Your task to perform on an android device: change the clock style Image 0: 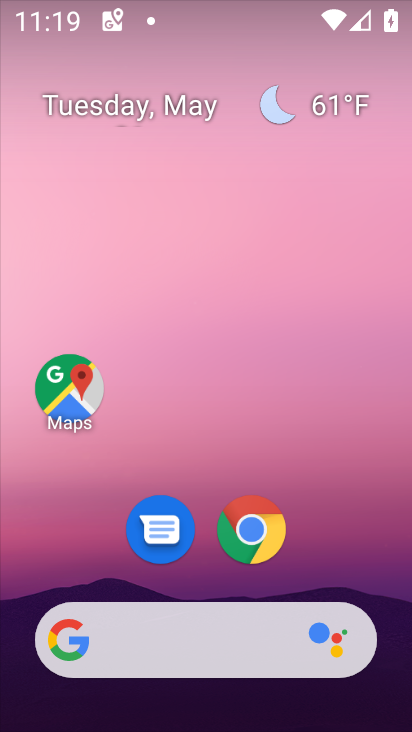
Step 0: drag from (337, 517) to (46, 61)
Your task to perform on an android device: change the clock style Image 1: 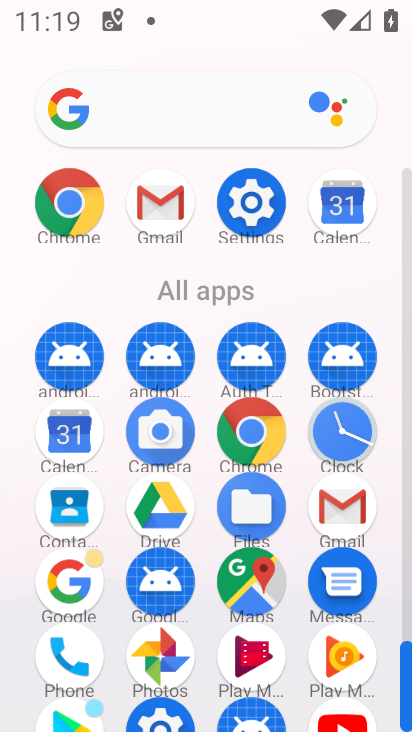
Step 1: click (344, 443)
Your task to perform on an android device: change the clock style Image 2: 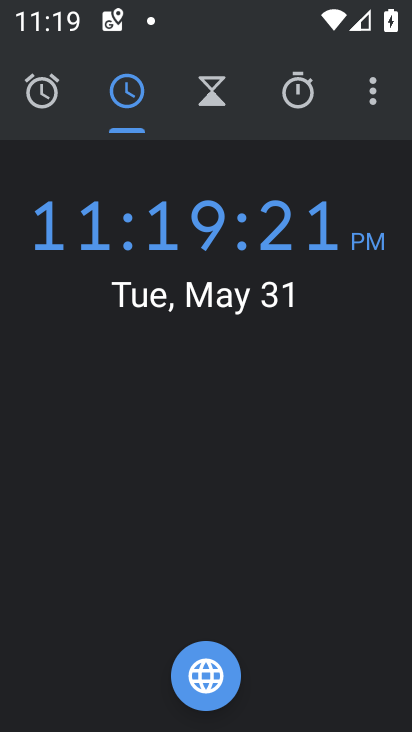
Step 2: click (373, 94)
Your task to perform on an android device: change the clock style Image 3: 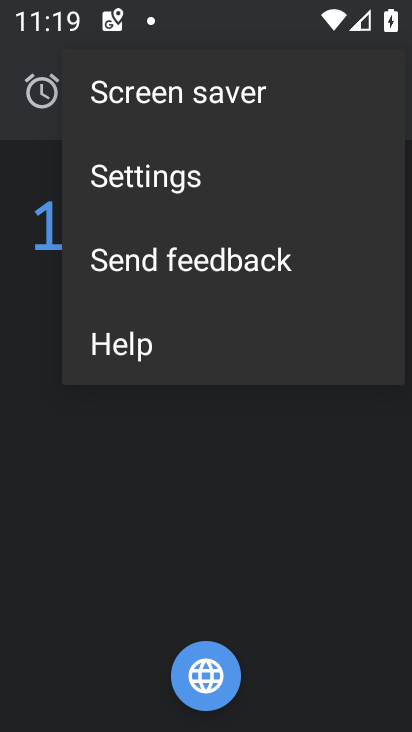
Step 3: click (179, 179)
Your task to perform on an android device: change the clock style Image 4: 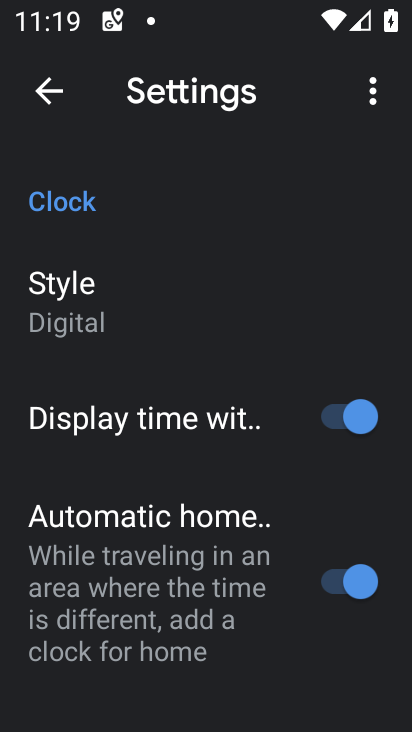
Step 4: click (87, 309)
Your task to perform on an android device: change the clock style Image 5: 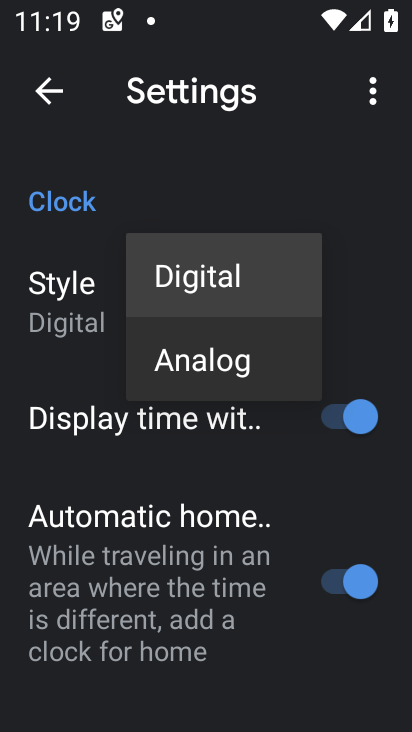
Step 5: click (190, 367)
Your task to perform on an android device: change the clock style Image 6: 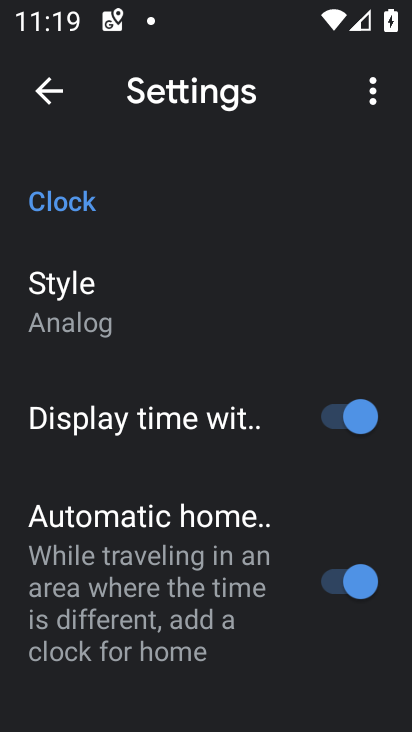
Step 6: task complete